Your task to perform on an android device: stop showing notifications on the lock screen Image 0: 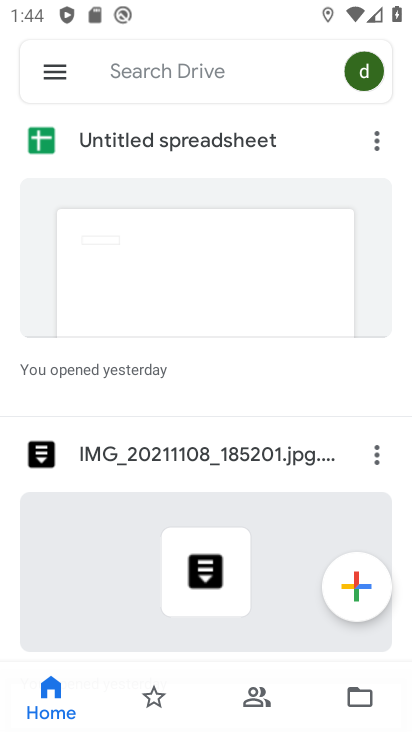
Step 0: press home button
Your task to perform on an android device: stop showing notifications on the lock screen Image 1: 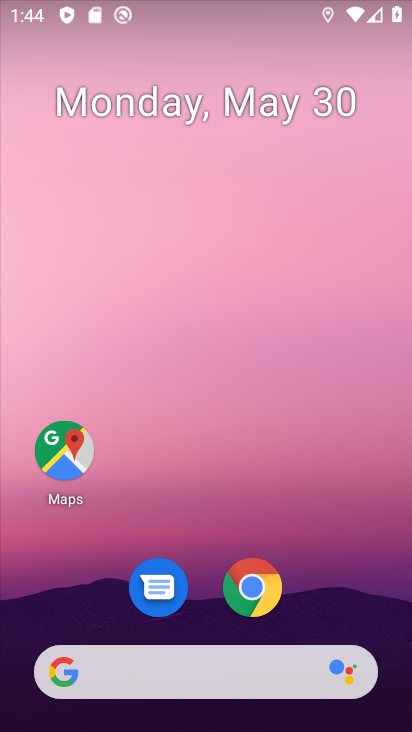
Step 1: drag from (127, 726) to (170, 68)
Your task to perform on an android device: stop showing notifications on the lock screen Image 2: 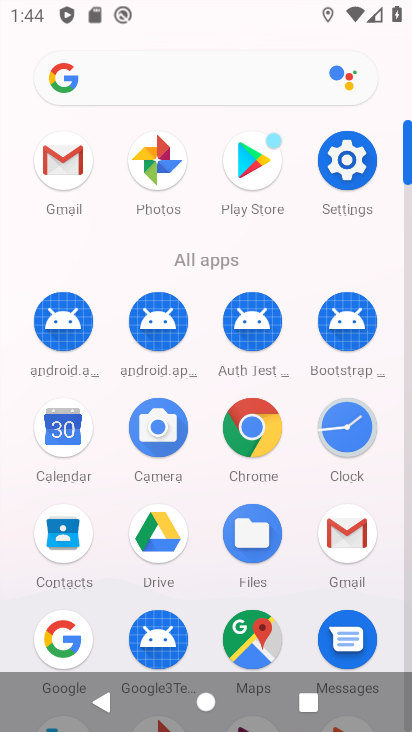
Step 2: click (341, 165)
Your task to perform on an android device: stop showing notifications on the lock screen Image 3: 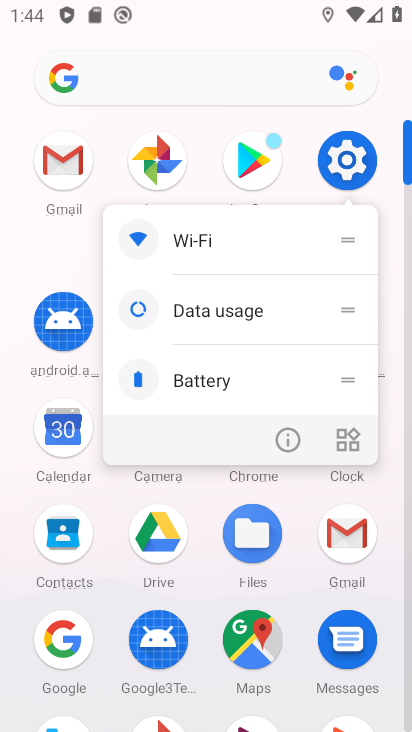
Step 3: click (338, 152)
Your task to perform on an android device: stop showing notifications on the lock screen Image 4: 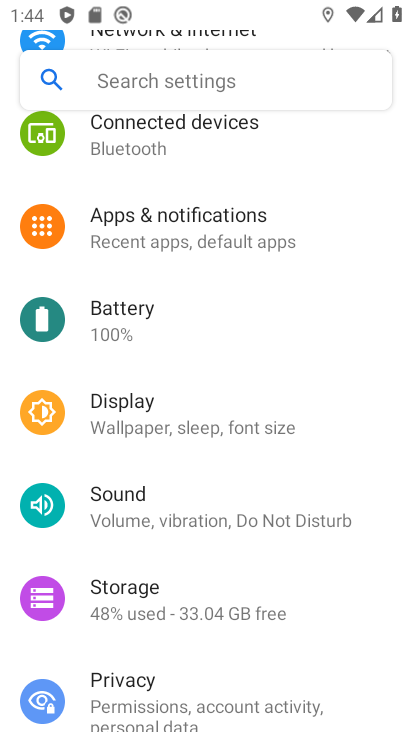
Step 4: click (187, 225)
Your task to perform on an android device: stop showing notifications on the lock screen Image 5: 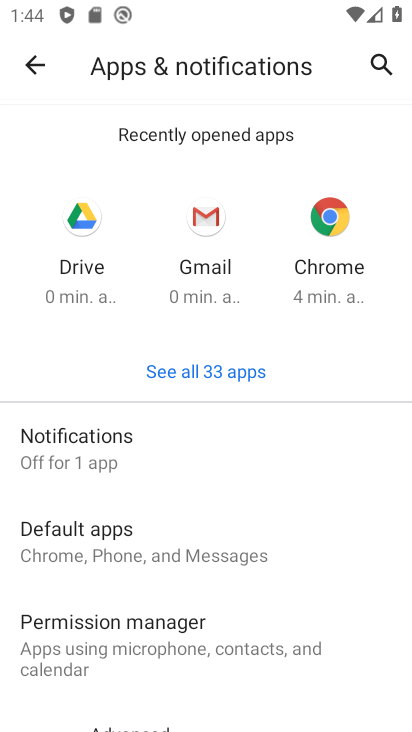
Step 5: drag from (340, 637) to (337, 317)
Your task to perform on an android device: stop showing notifications on the lock screen Image 6: 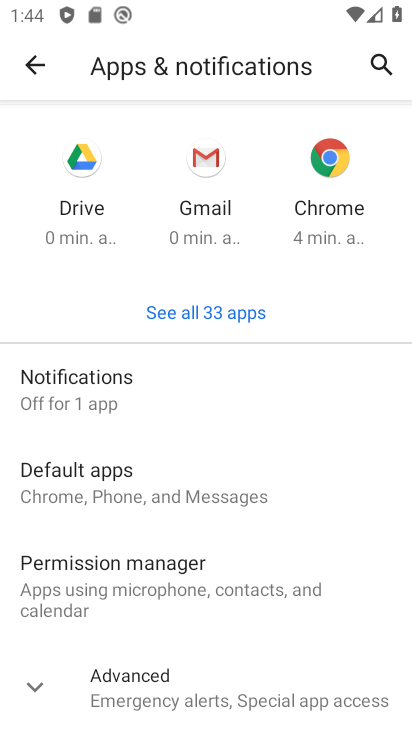
Step 6: click (147, 399)
Your task to perform on an android device: stop showing notifications on the lock screen Image 7: 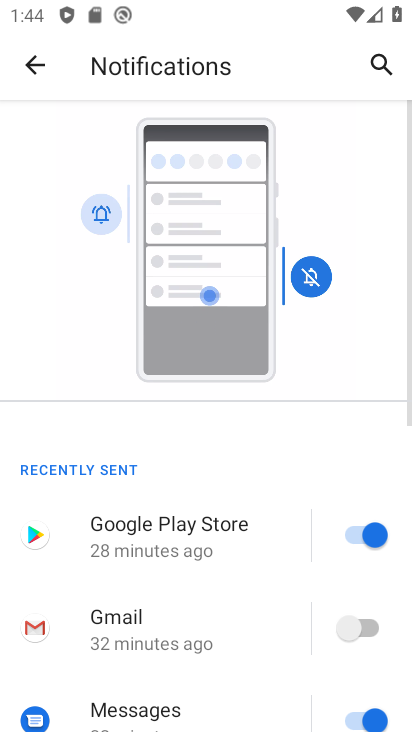
Step 7: drag from (241, 720) to (235, 304)
Your task to perform on an android device: stop showing notifications on the lock screen Image 8: 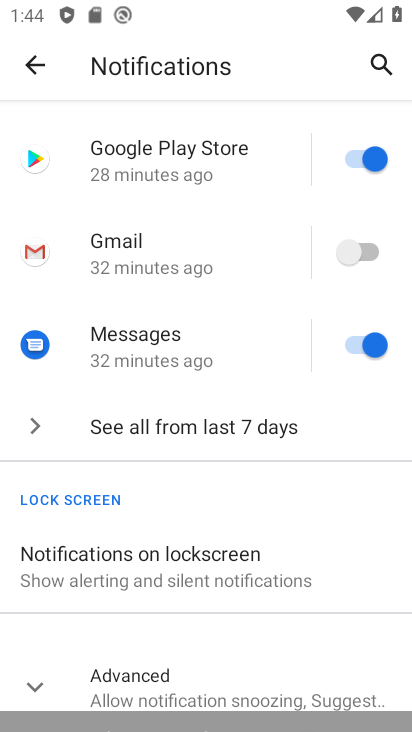
Step 8: click (233, 572)
Your task to perform on an android device: stop showing notifications on the lock screen Image 9: 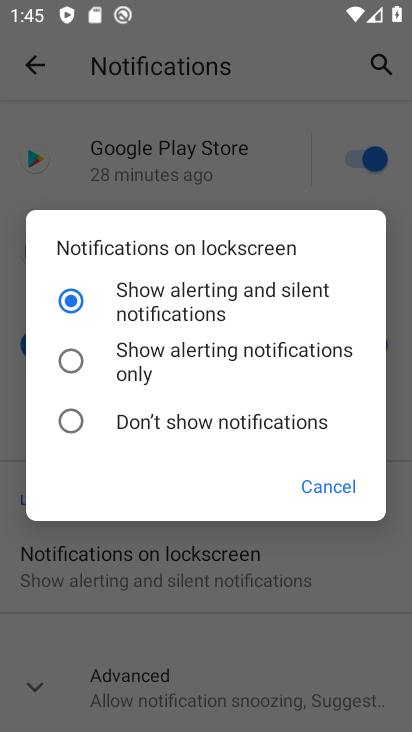
Step 9: click (233, 427)
Your task to perform on an android device: stop showing notifications on the lock screen Image 10: 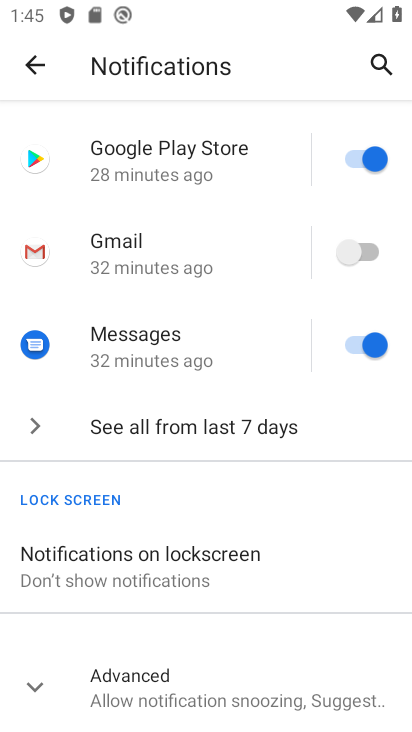
Step 10: task complete